Your task to perform on an android device: Open the stopwatch Image 0: 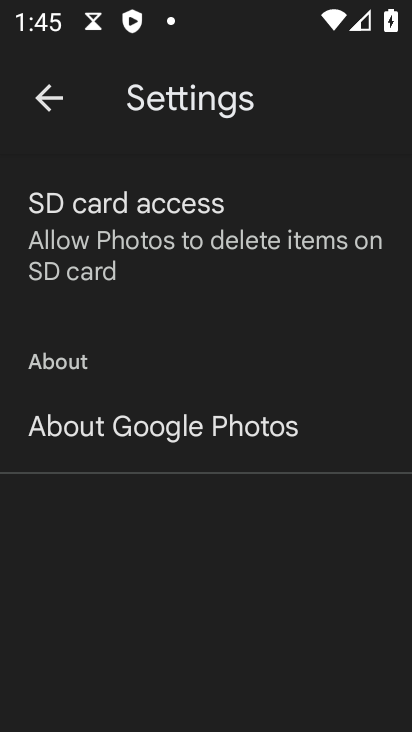
Step 0: press back button
Your task to perform on an android device: Open the stopwatch Image 1: 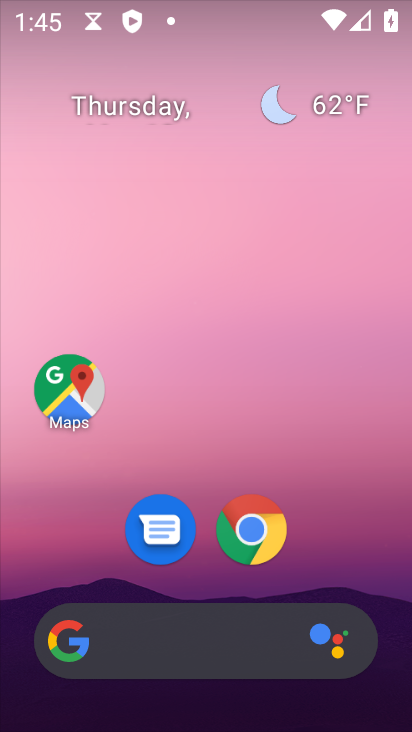
Step 1: drag from (343, 550) to (252, 221)
Your task to perform on an android device: Open the stopwatch Image 2: 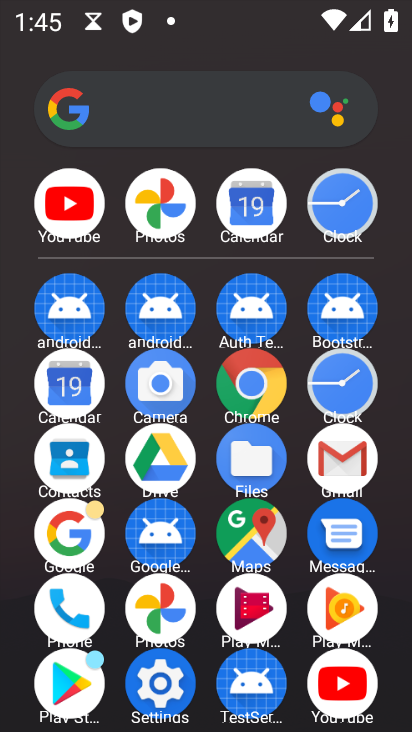
Step 2: click (340, 204)
Your task to perform on an android device: Open the stopwatch Image 3: 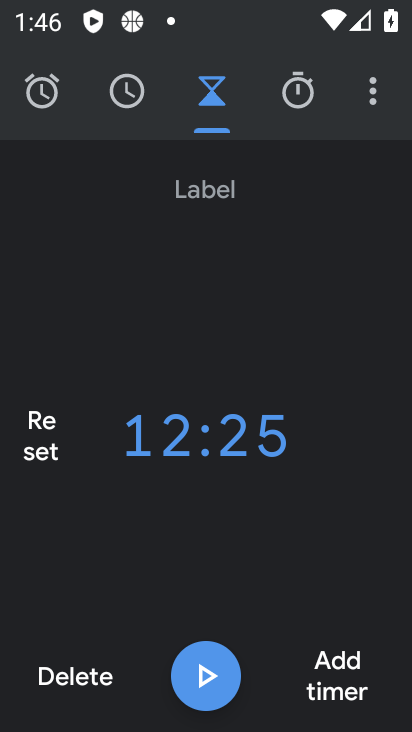
Step 3: click (301, 96)
Your task to perform on an android device: Open the stopwatch Image 4: 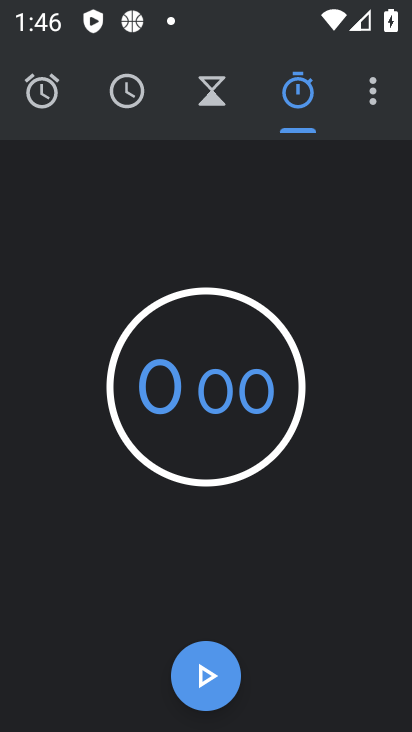
Step 4: task complete